Your task to perform on an android device: Show the shopping cart on ebay. Image 0: 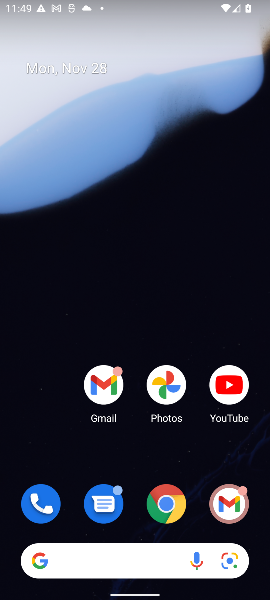
Step 0: click (163, 501)
Your task to perform on an android device: Show the shopping cart on ebay. Image 1: 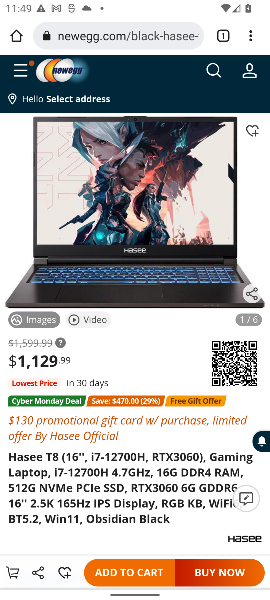
Step 1: click (116, 35)
Your task to perform on an android device: Show the shopping cart on ebay. Image 2: 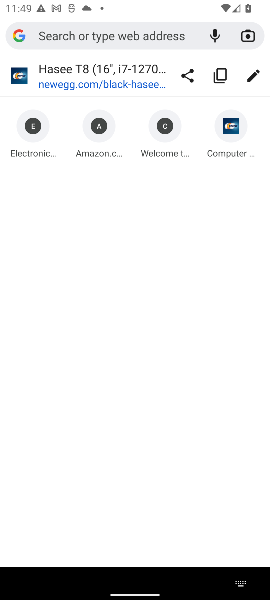
Step 2: type "ebay.com"
Your task to perform on an android device: Show the shopping cart on ebay. Image 3: 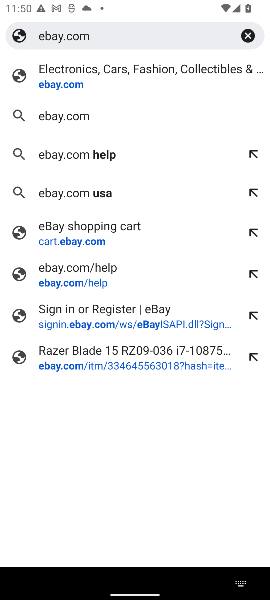
Step 3: click (57, 86)
Your task to perform on an android device: Show the shopping cart on ebay. Image 4: 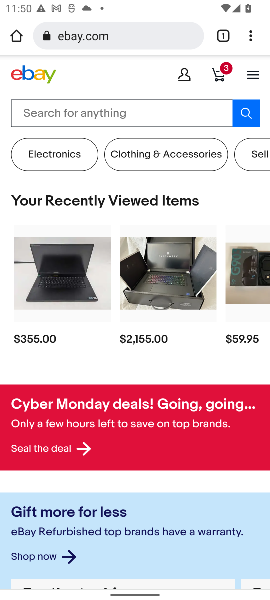
Step 4: click (221, 72)
Your task to perform on an android device: Show the shopping cart on ebay. Image 5: 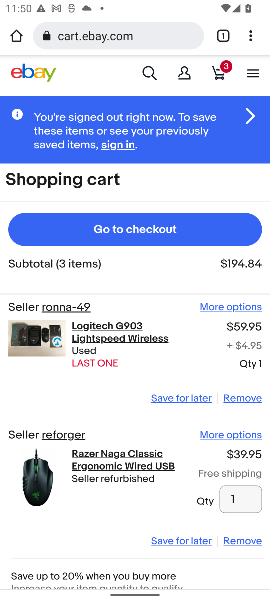
Step 5: task complete